Your task to perform on an android device: install app "Messenger Lite" Image 0: 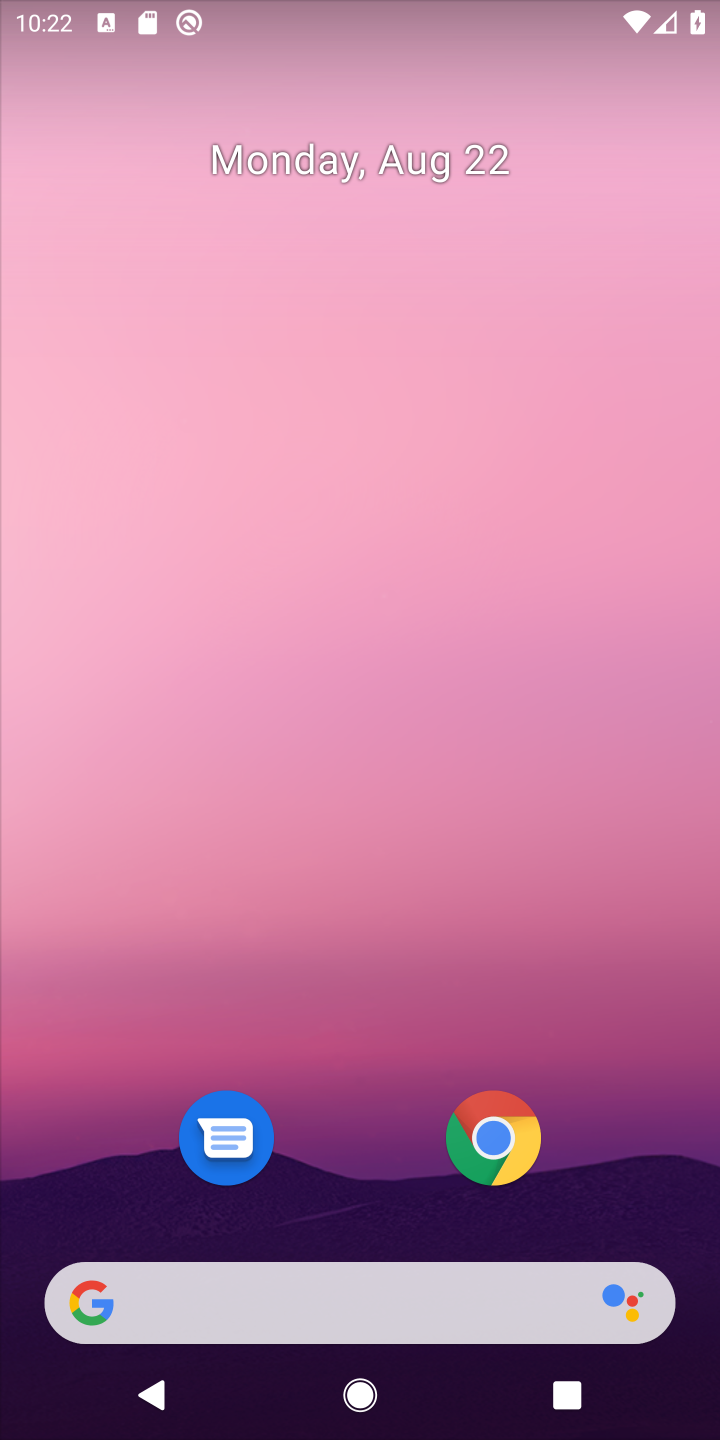
Step 0: press home button
Your task to perform on an android device: install app "Messenger Lite" Image 1: 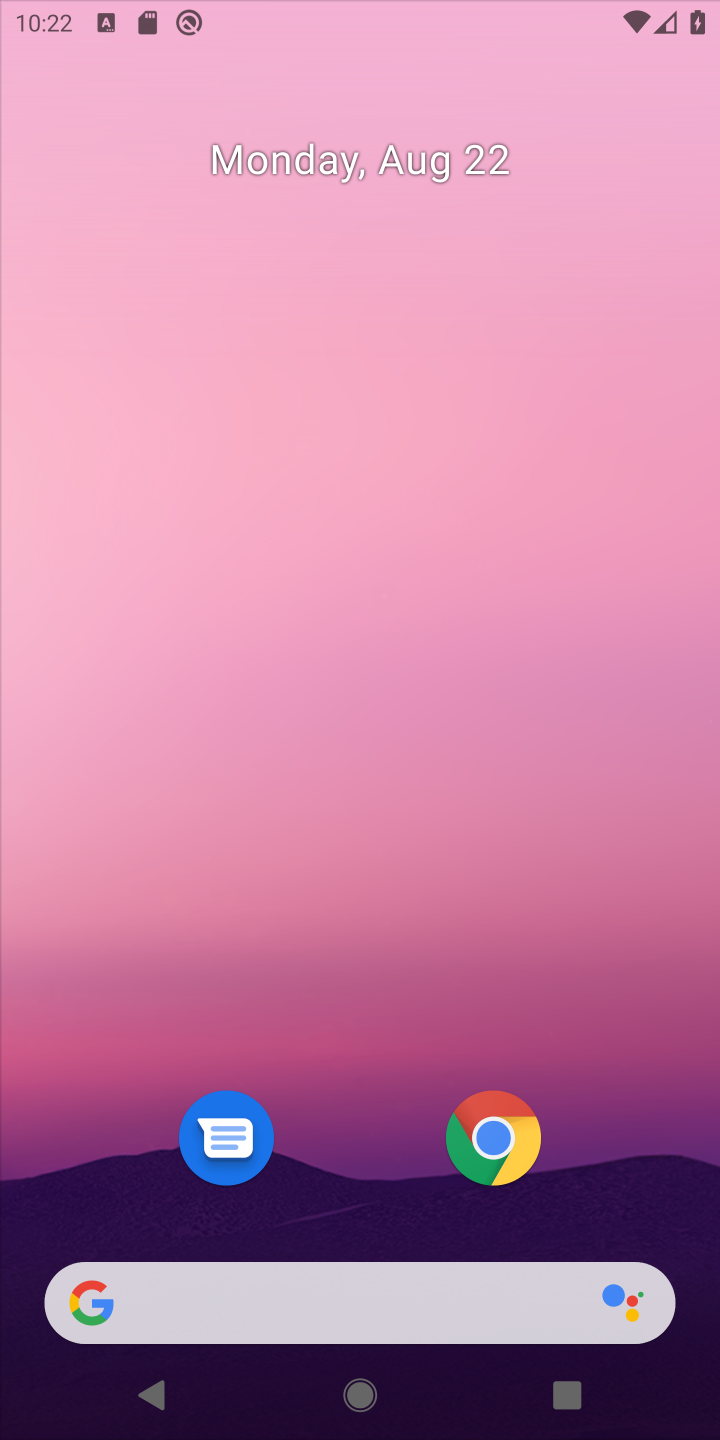
Step 1: drag from (371, 1206) to (397, 746)
Your task to perform on an android device: install app "Messenger Lite" Image 2: 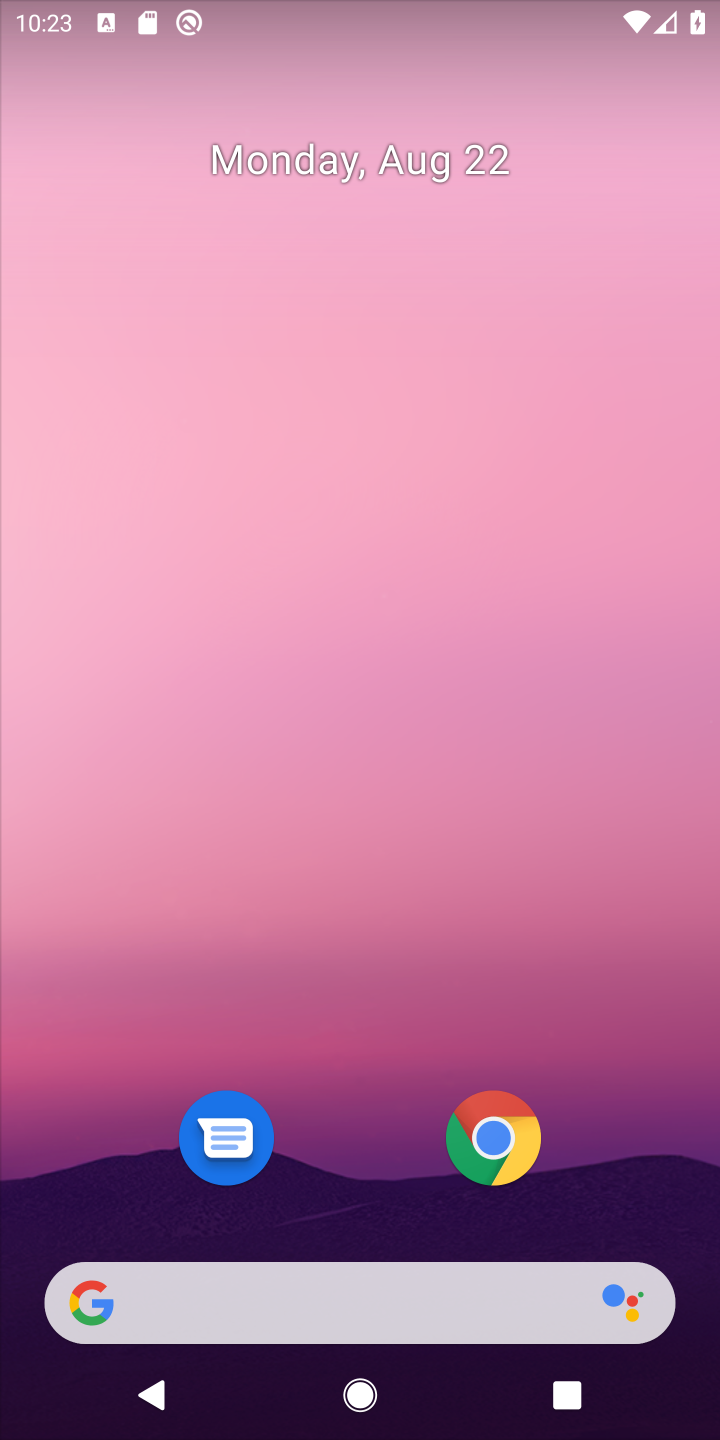
Step 2: press home button
Your task to perform on an android device: install app "Messenger Lite" Image 3: 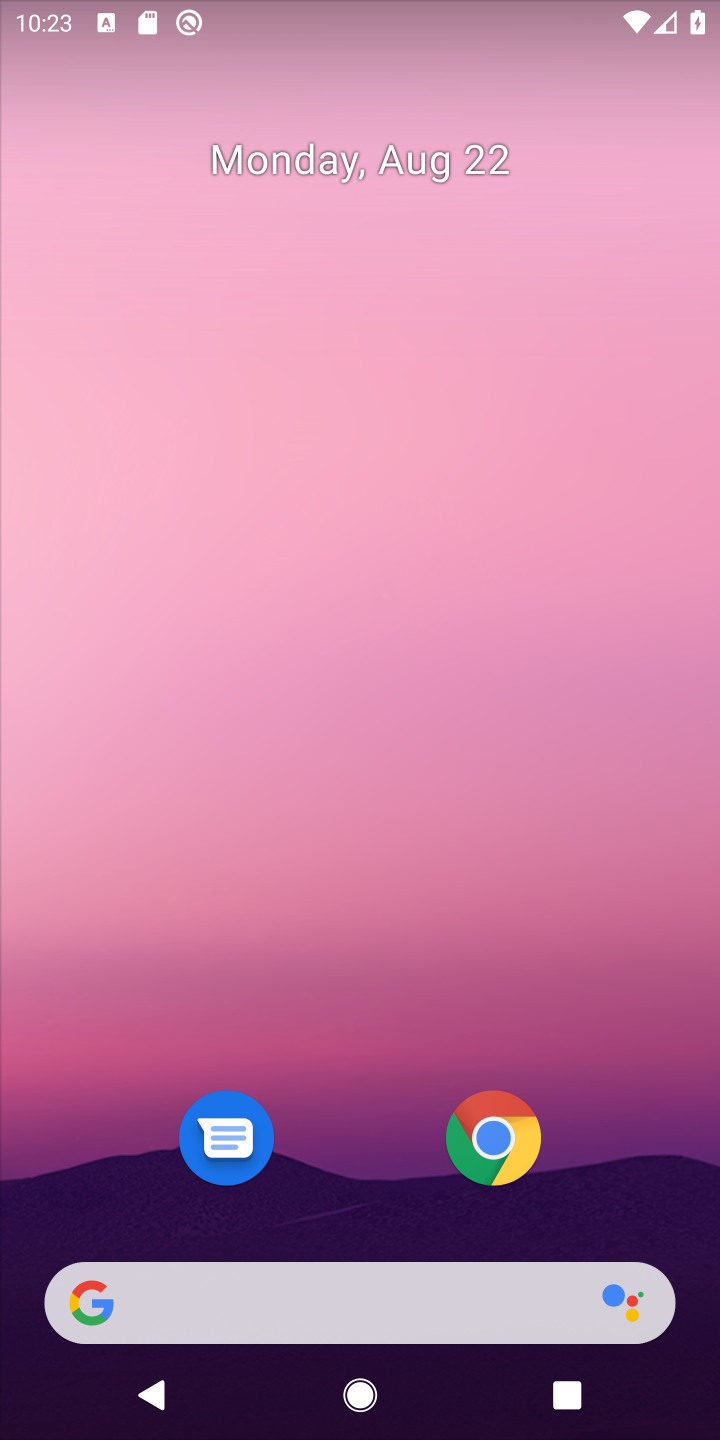
Step 3: drag from (359, 1209) to (423, 57)
Your task to perform on an android device: install app "Messenger Lite" Image 4: 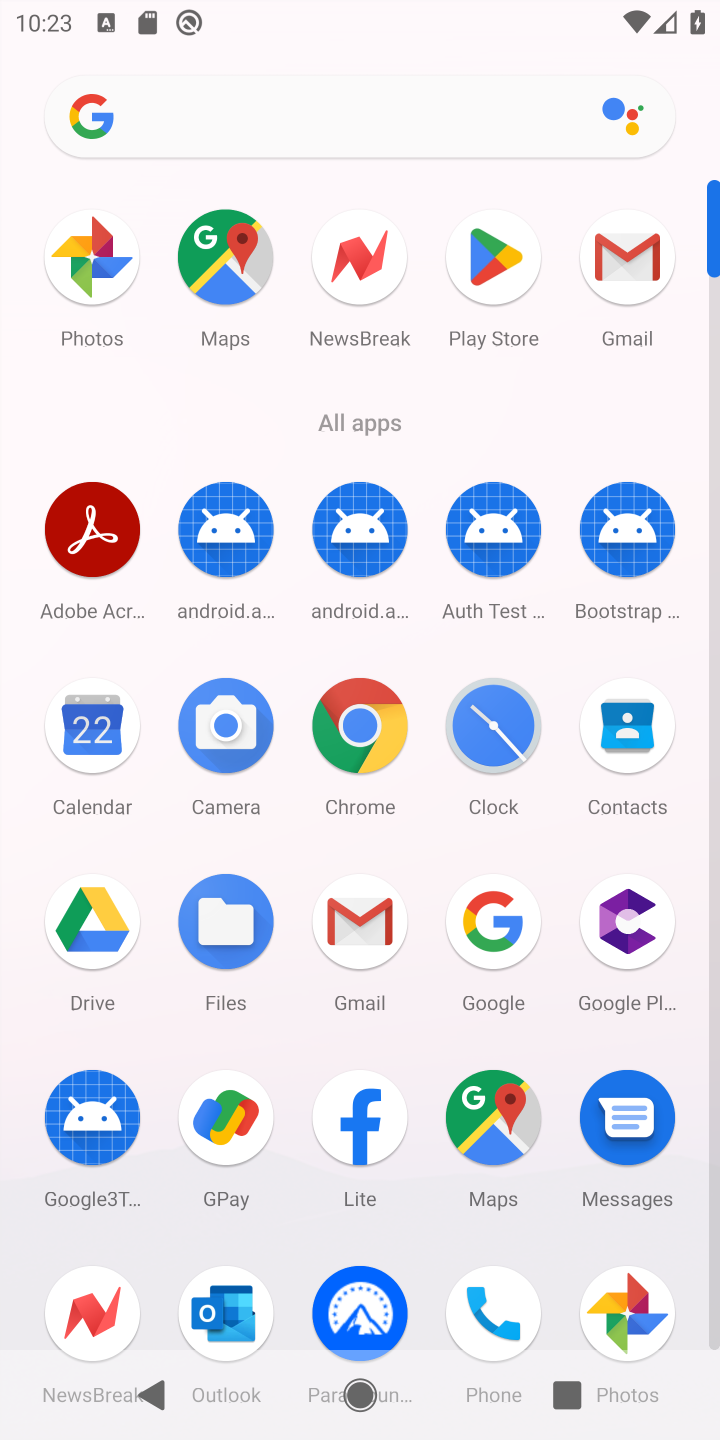
Step 4: click (489, 250)
Your task to perform on an android device: install app "Messenger Lite" Image 5: 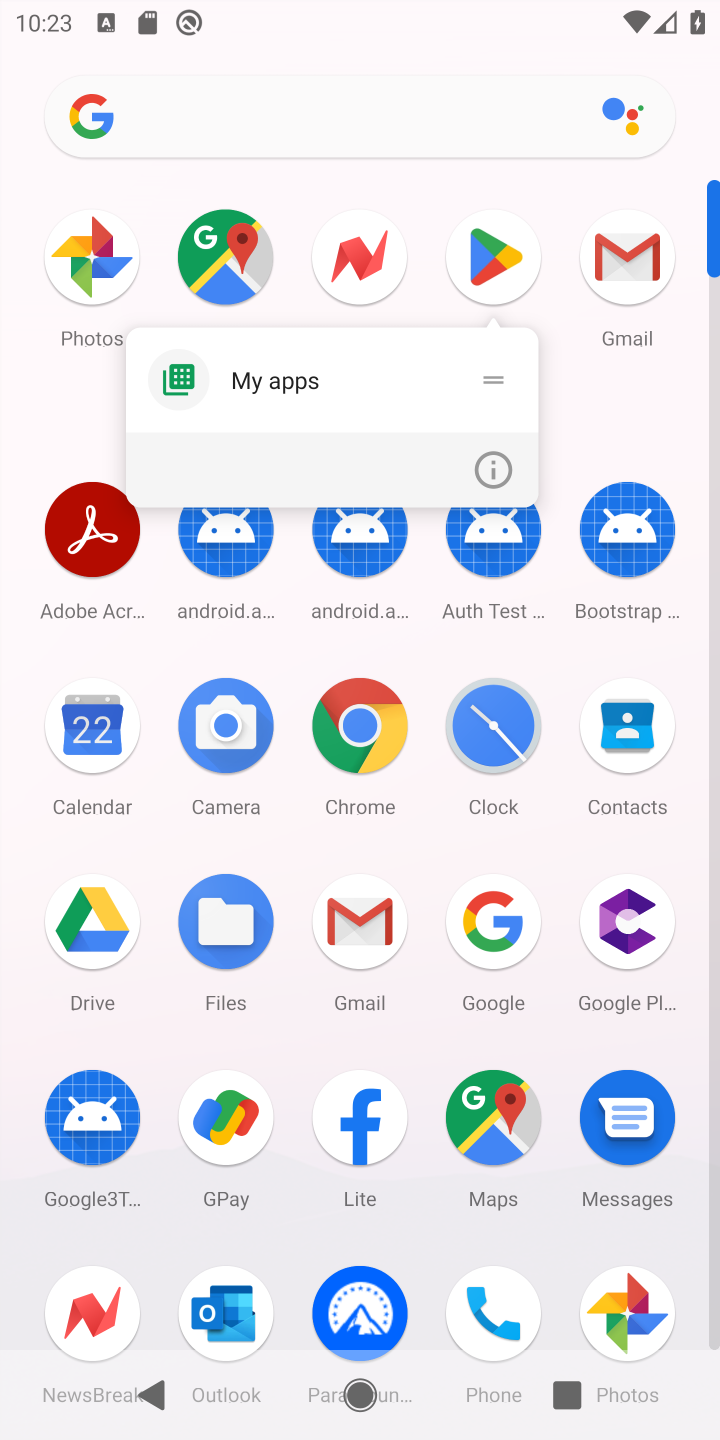
Step 5: click (489, 246)
Your task to perform on an android device: install app "Messenger Lite" Image 6: 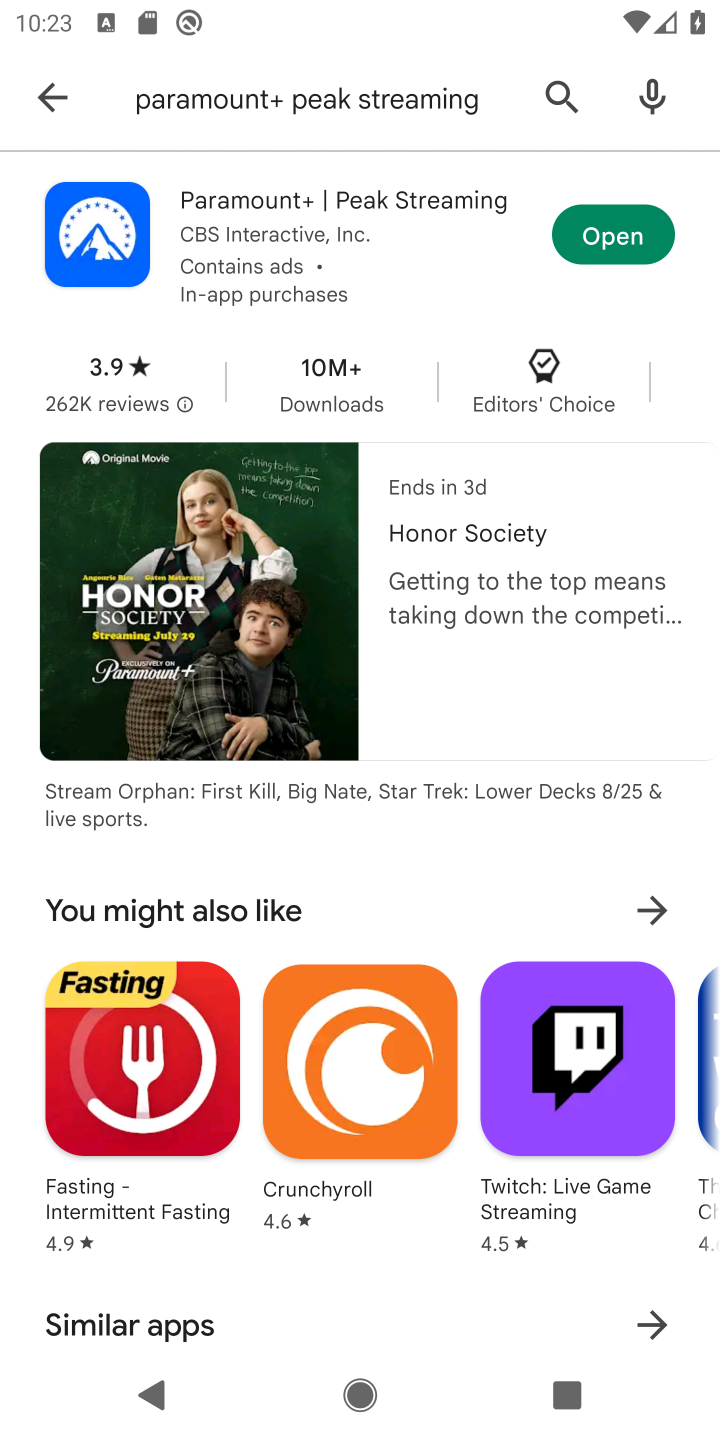
Step 6: click (559, 104)
Your task to perform on an android device: install app "Messenger Lite" Image 7: 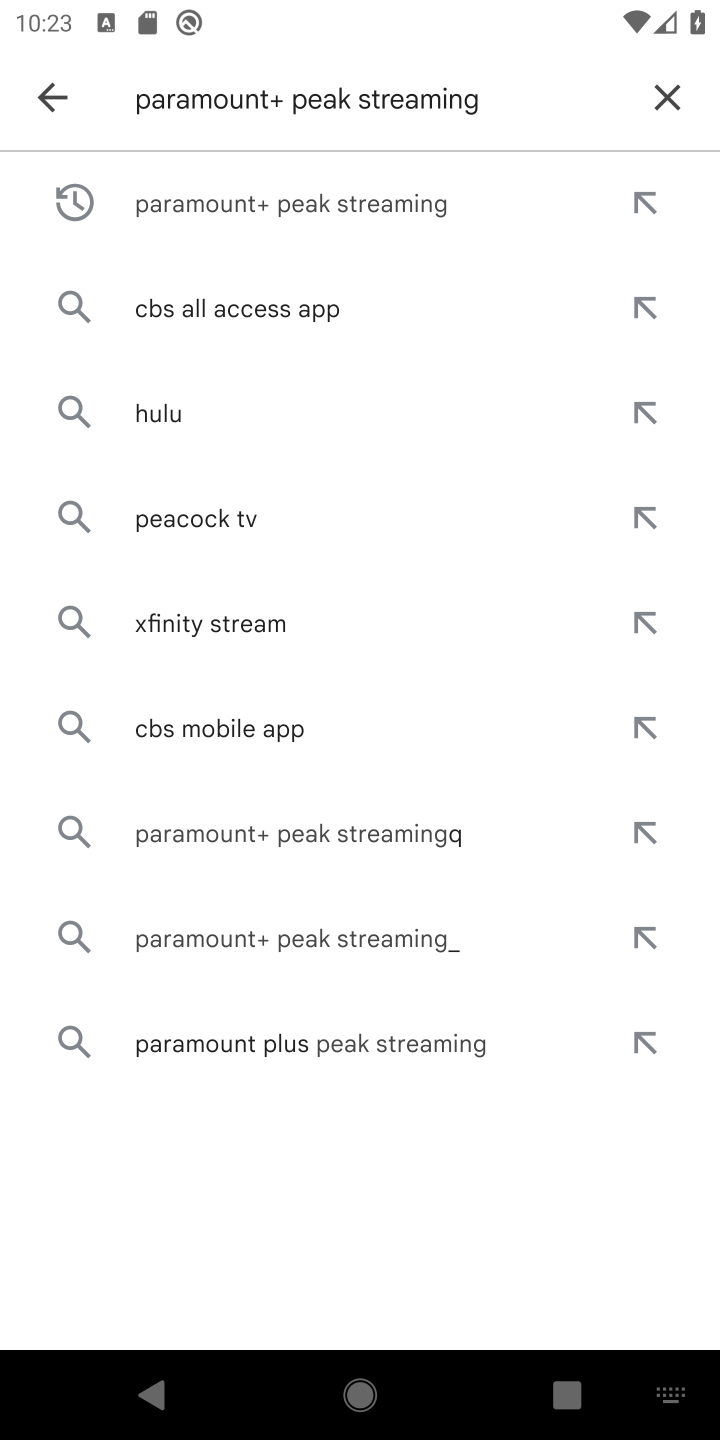
Step 7: click (668, 87)
Your task to perform on an android device: install app "Messenger Lite" Image 8: 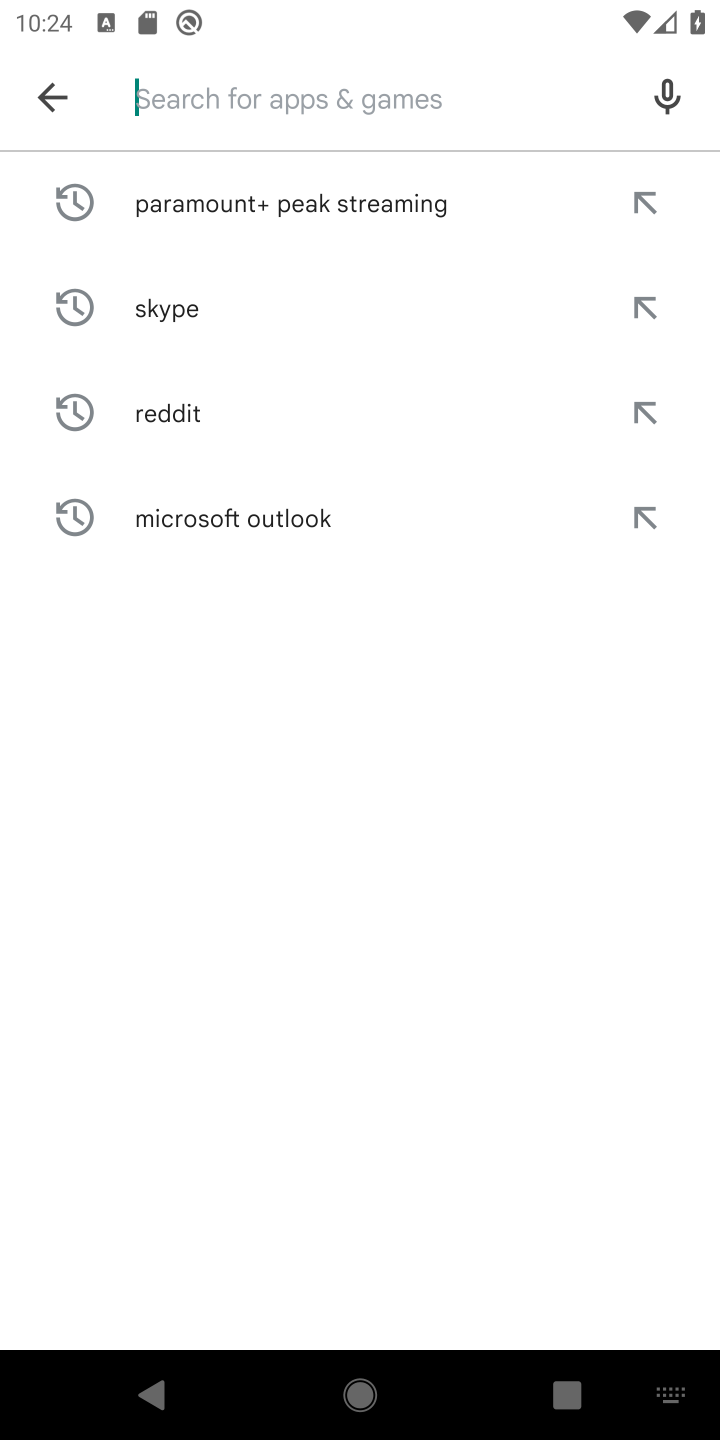
Step 8: type "Messenger Lite"
Your task to perform on an android device: install app "Messenger Lite" Image 9: 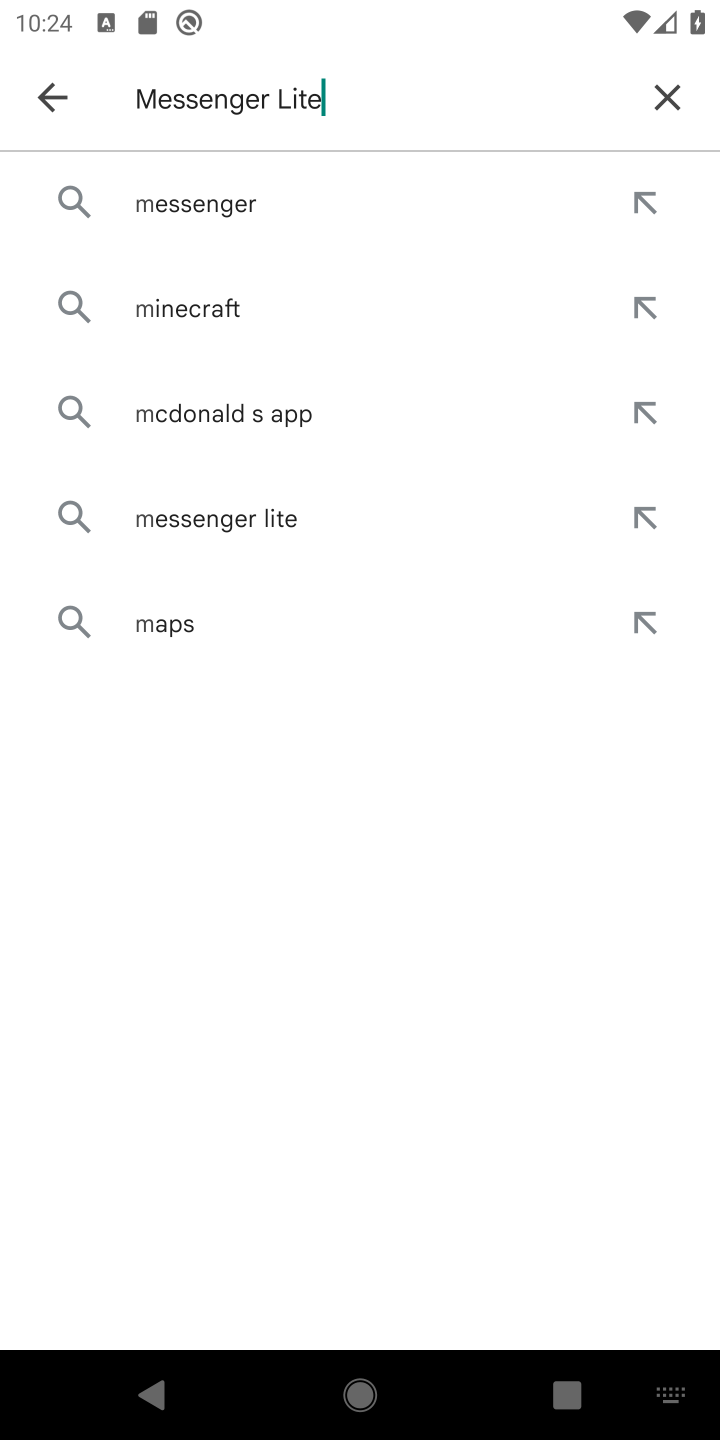
Step 9: type ""
Your task to perform on an android device: install app "Messenger Lite" Image 10: 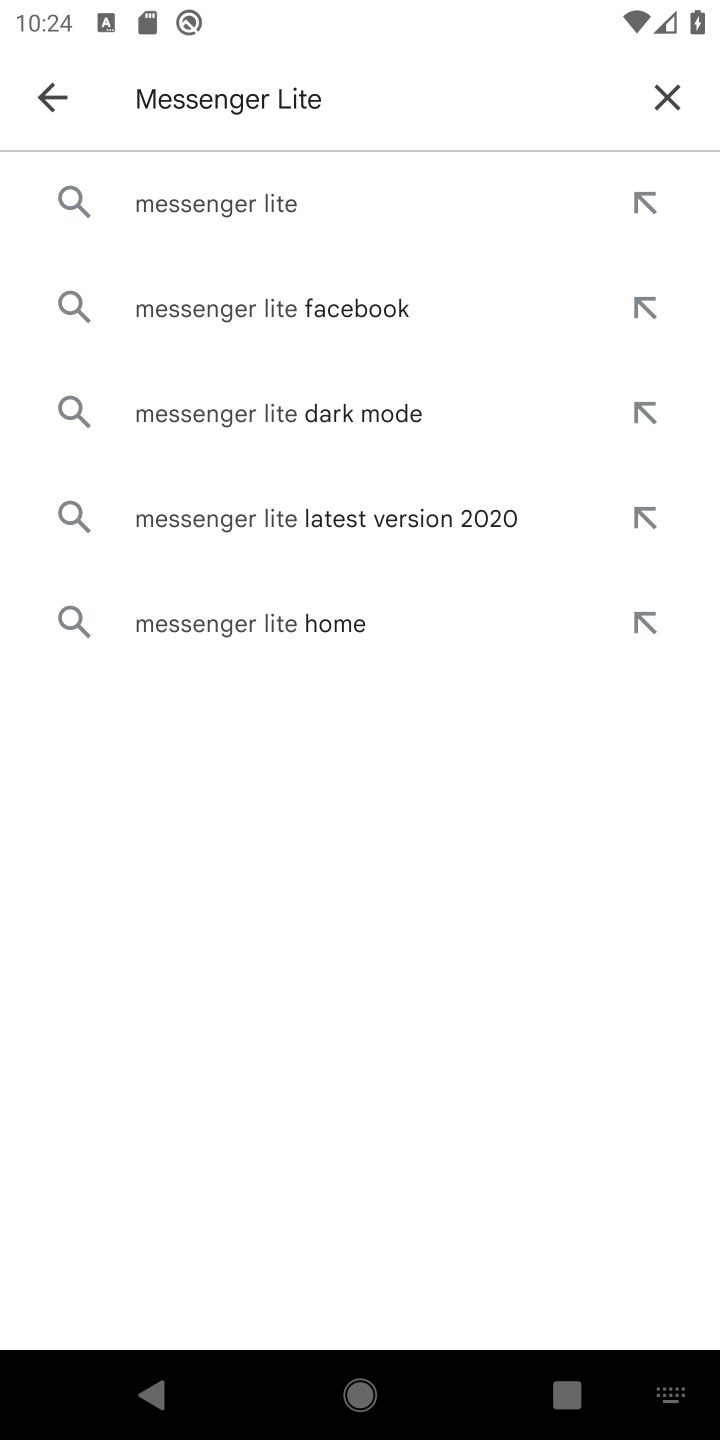
Step 10: click (334, 209)
Your task to perform on an android device: install app "Messenger Lite" Image 11: 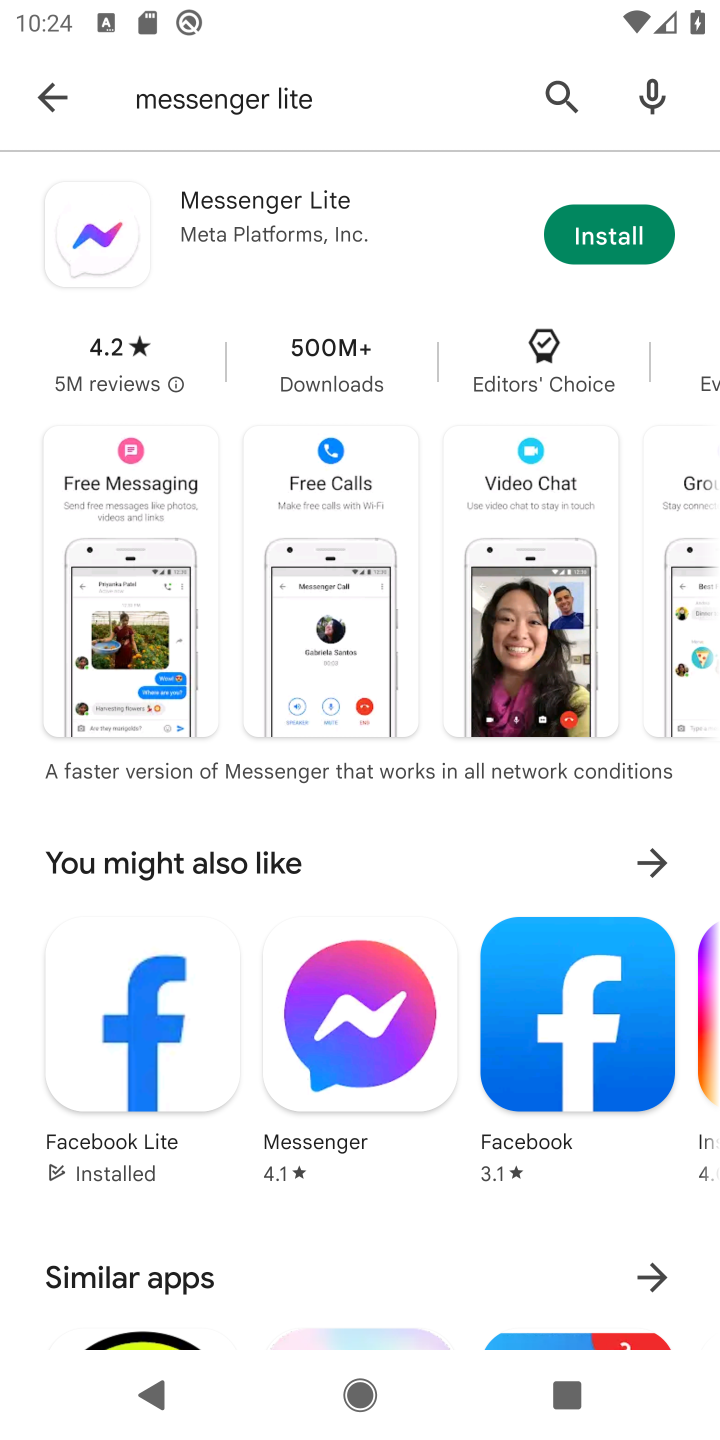
Step 11: click (603, 236)
Your task to perform on an android device: install app "Messenger Lite" Image 12: 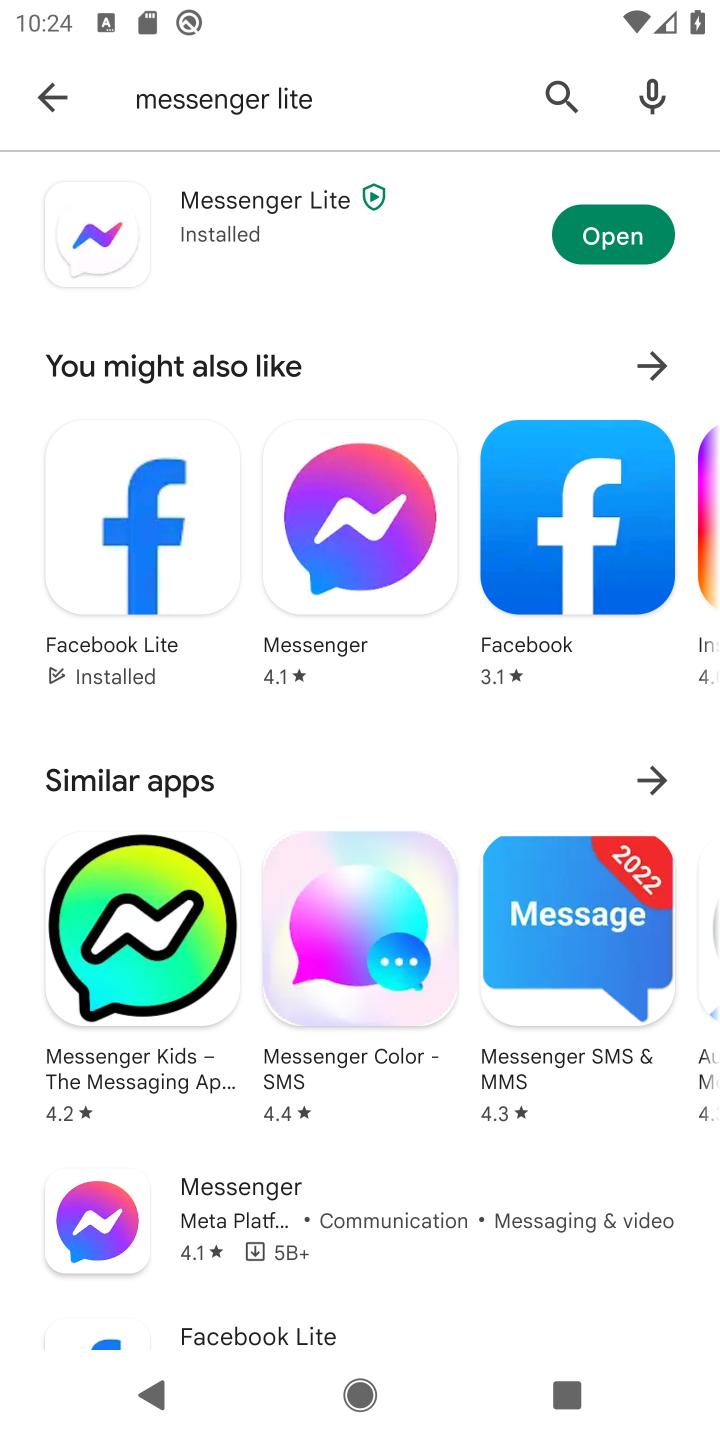
Step 12: click (611, 236)
Your task to perform on an android device: install app "Messenger Lite" Image 13: 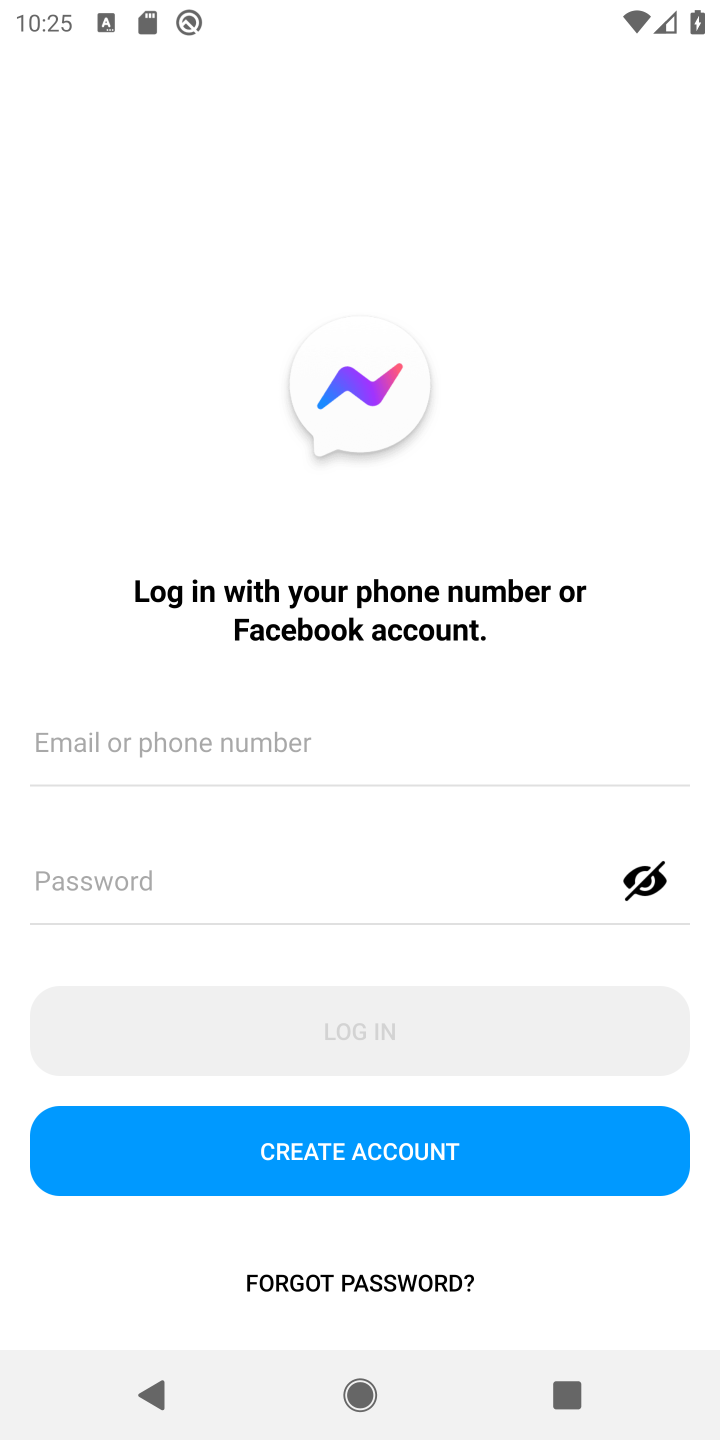
Step 13: task complete